Your task to perform on an android device: install app "Reddit" Image 0: 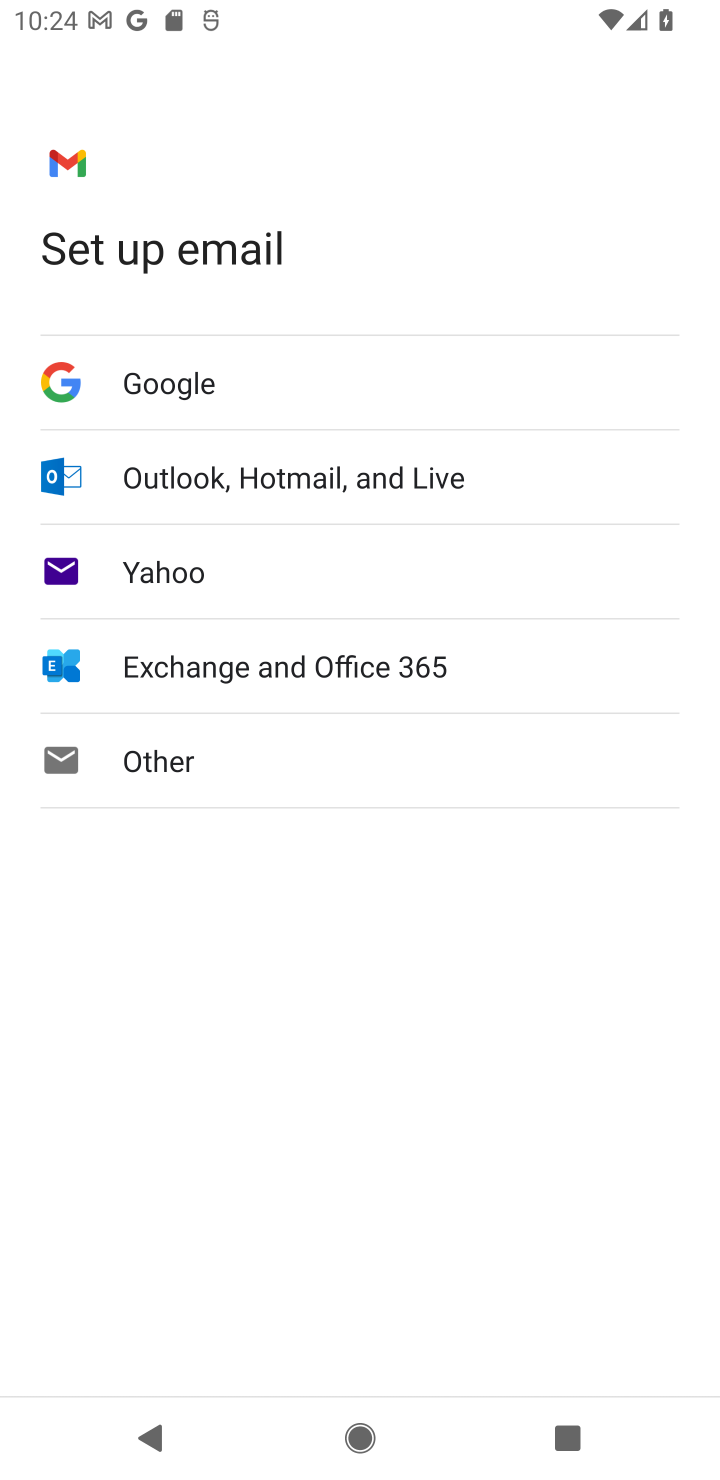
Step 0: press home button
Your task to perform on an android device: install app "Reddit" Image 1: 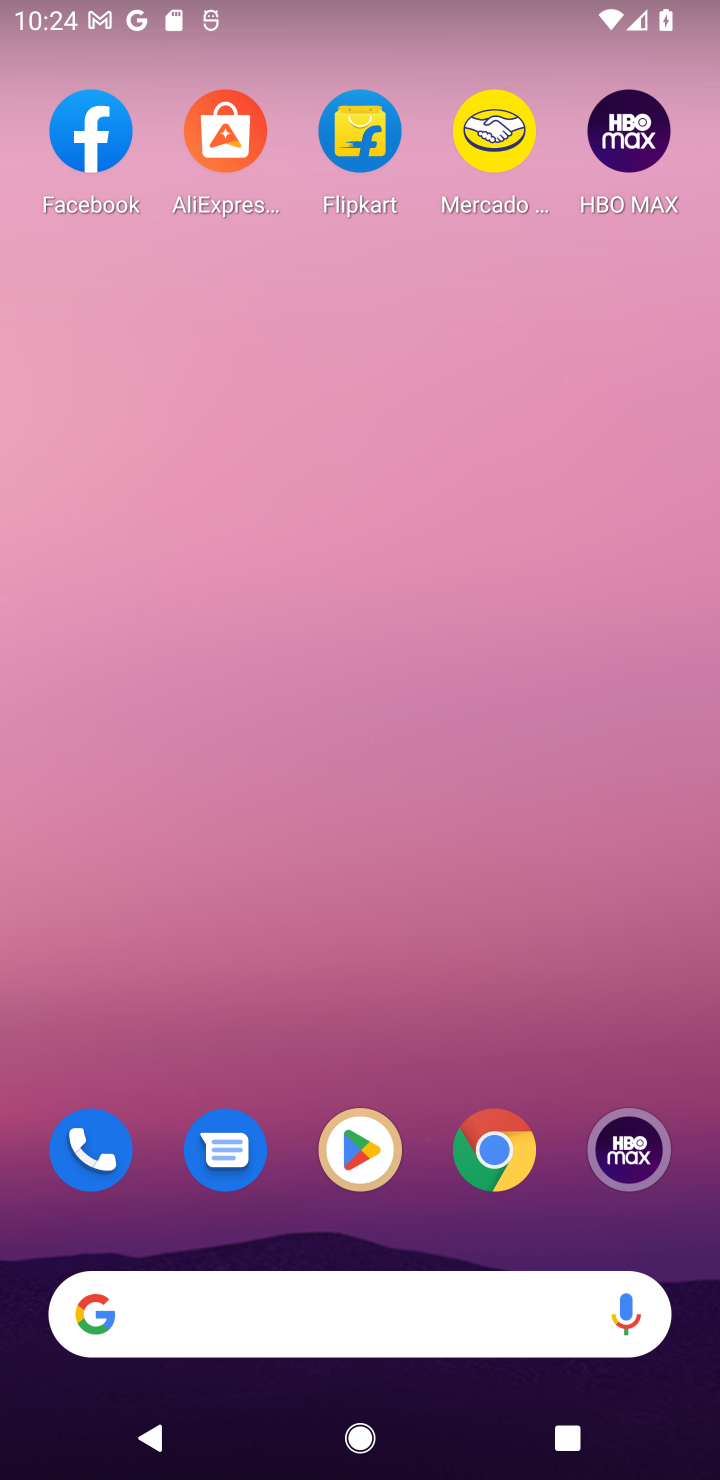
Step 1: click (340, 1184)
Your task to perform on an android device: install app "Reddit" Image 2: 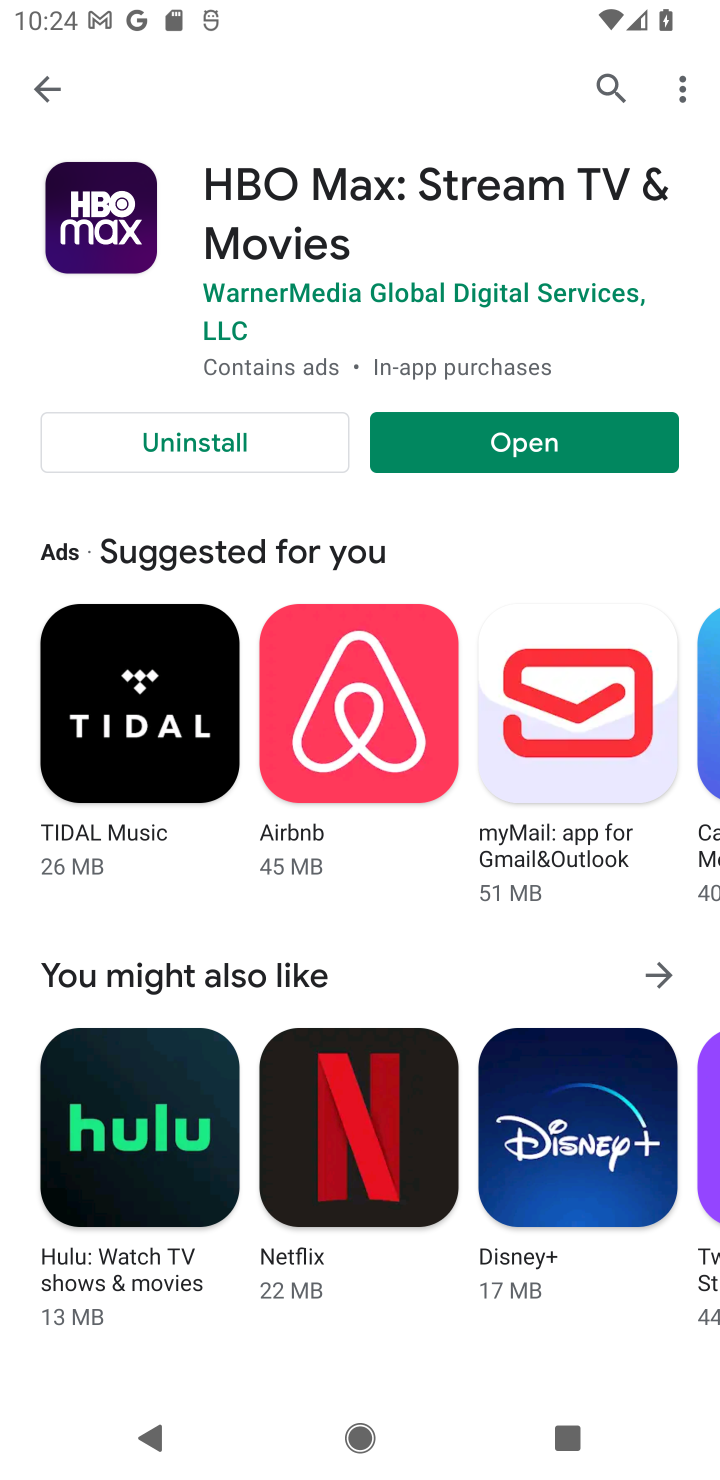
Step 2: click (608, 94)
Your task to perform on an android device: install app "Reddit" Image 3: 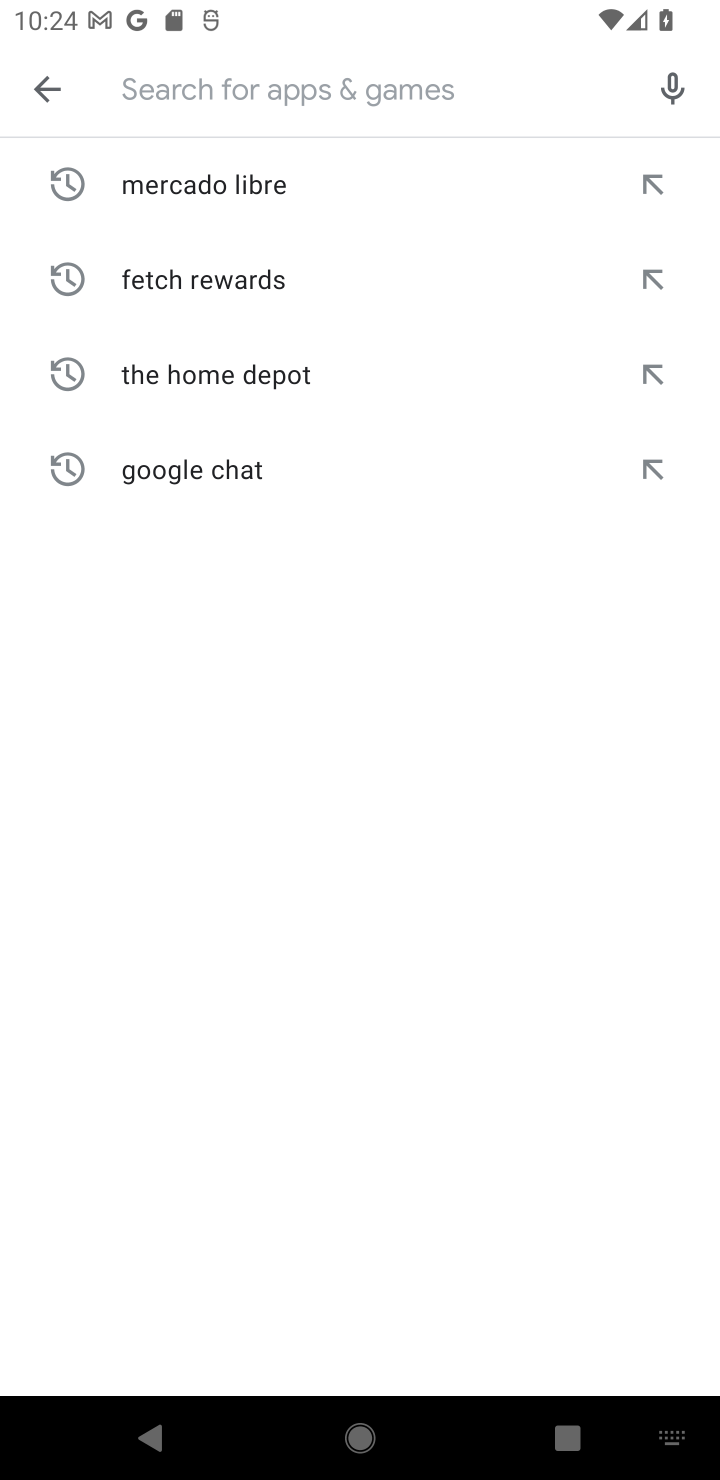
Step 3: type "Reddit"
Your task to perform on an android device: install app "Reddit" Image 4: 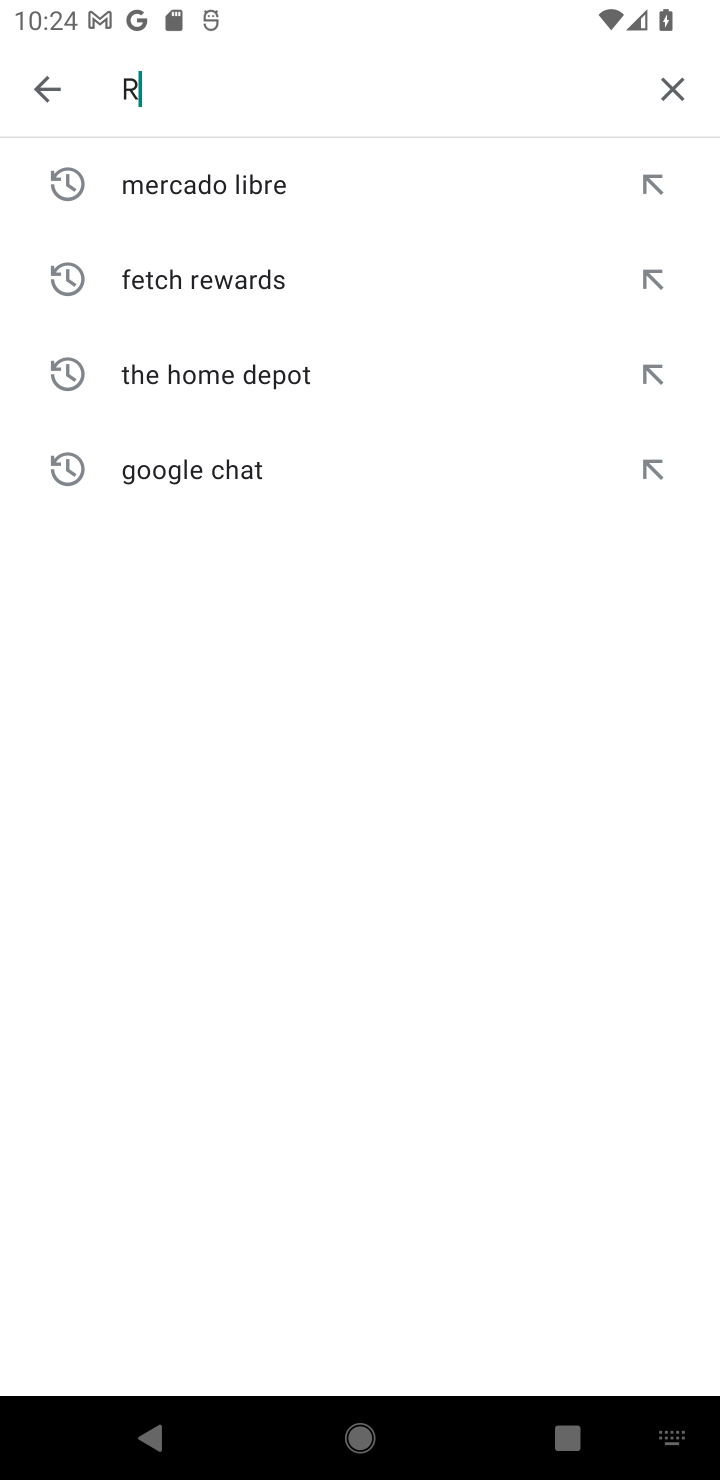
Step 4: type ""
Your task to perform on an android device: install app "Reddit" Image 5: 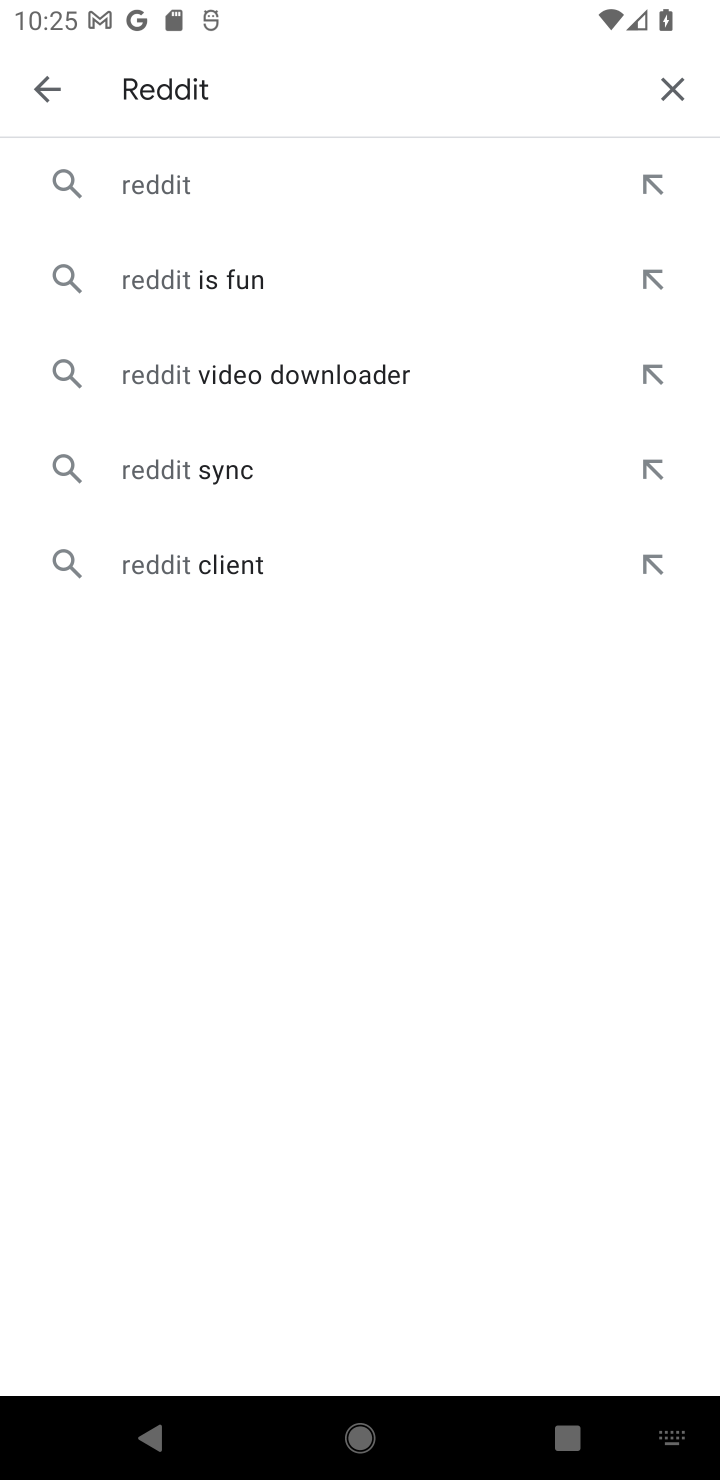
Step 5: click (282, 195)
Your task to perform on an android device: install app "Reddit" Image 6: 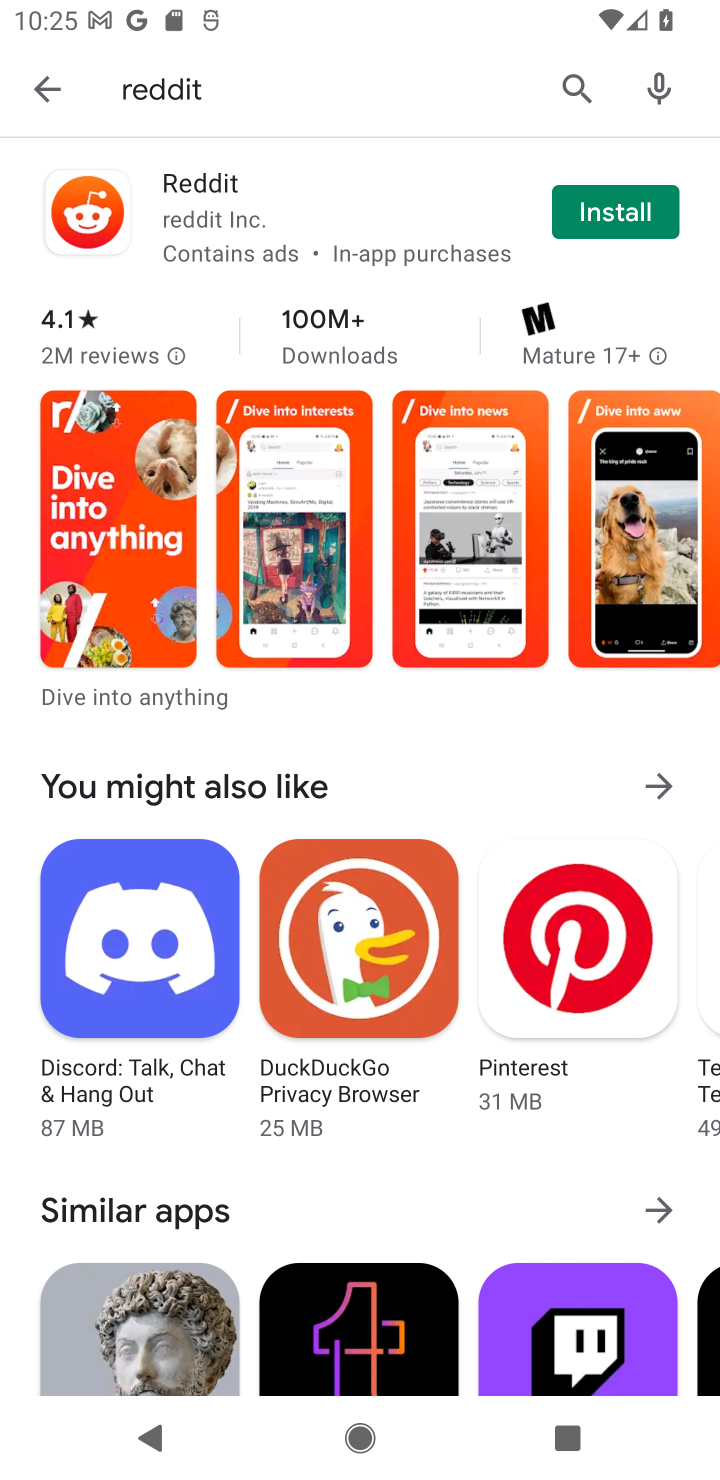
Step 6: click (608, 214)
Your task to perform on an android device: install app "Reddit" Image 7: 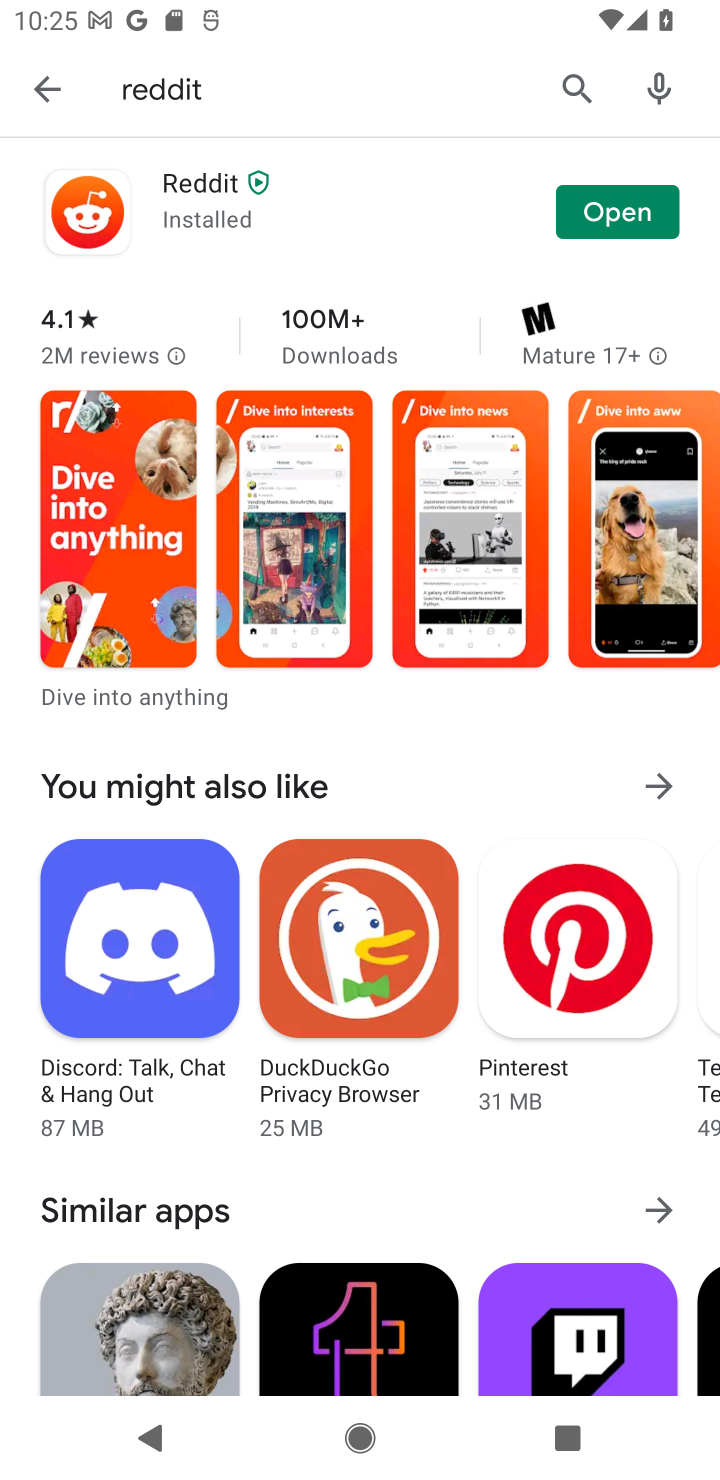
Step 7: task complete